Your task to perform on an android device: check storage Image 0: 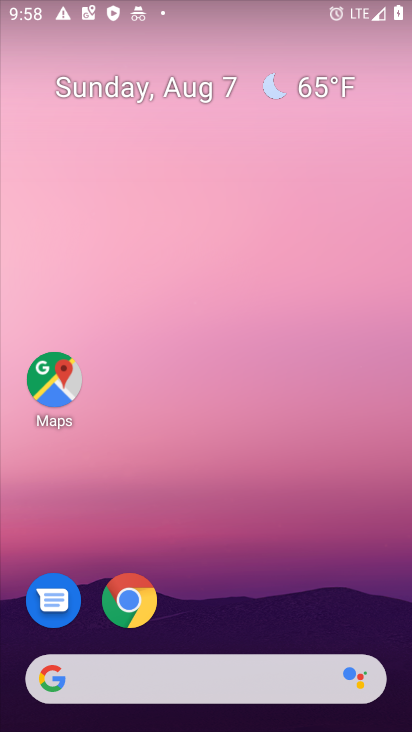
Step 0: drag from (201, 586) to (186, 15)
Your task to perform on an android device: check storage Image 1: 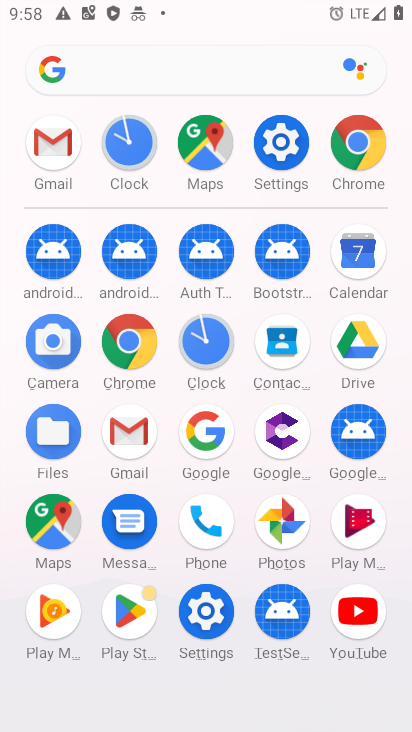
Step 1: click (278, 142)
Your task to perform on an android device: check storage Image 2: 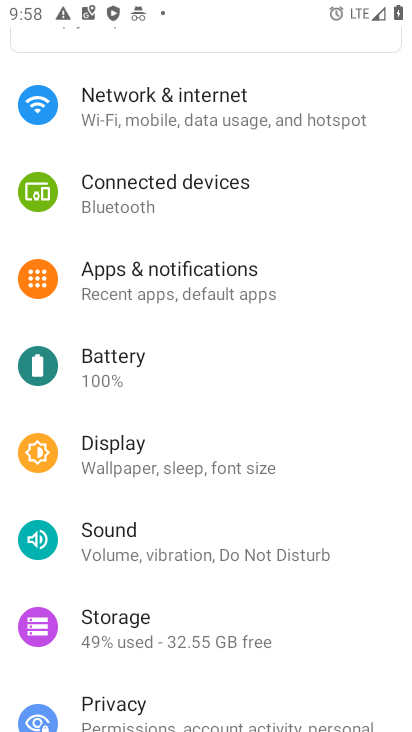
Step 2: click (71, 636)
Your task to perform on an android device: check storage Image 3: 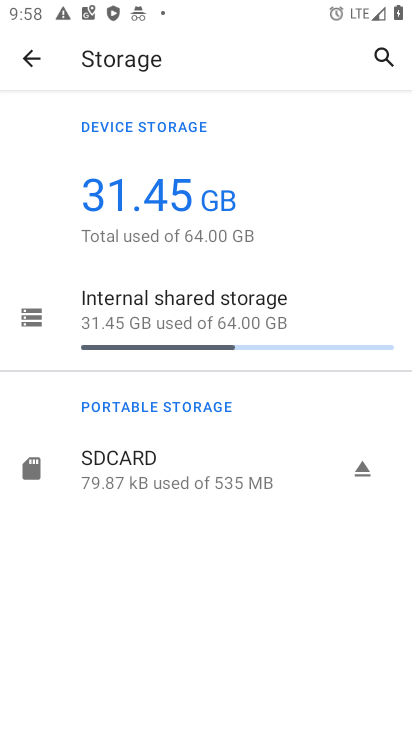
Step 3: task complete